Your task to perform on an android device: Open calendar and show me the second week of next month Image 0: 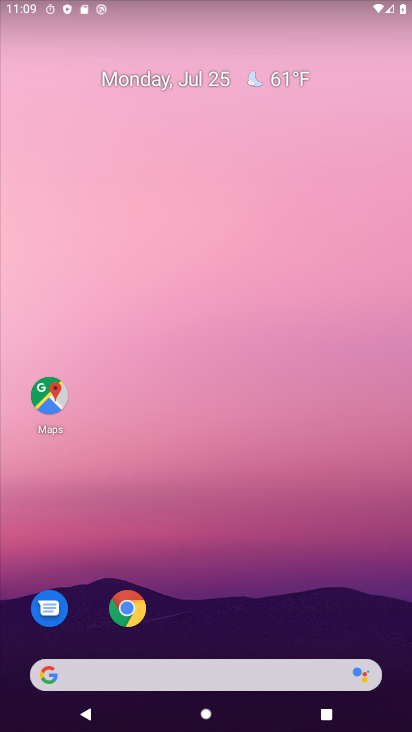
Step 0: drag from (287, 583) to (353, 7)
Your task to perform on an android device: Open calendar and show me the second week of next month Image 1: 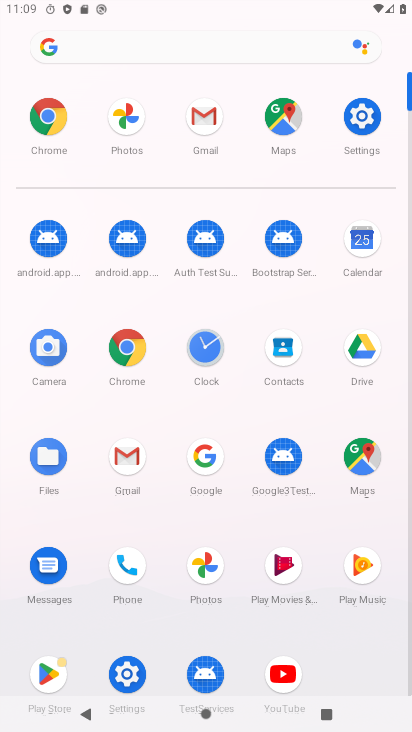
Step 1: click (374, 239)
Your task to perform on an android device: Open calendar and show me the second week of next month Image 2: 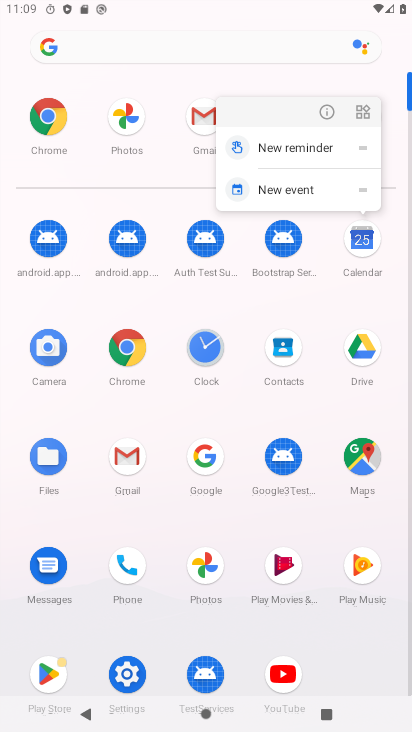
Step 2: click (361, 246)
Your task to perform on an android device: Open calendar and show me the second week of next month Image 3: 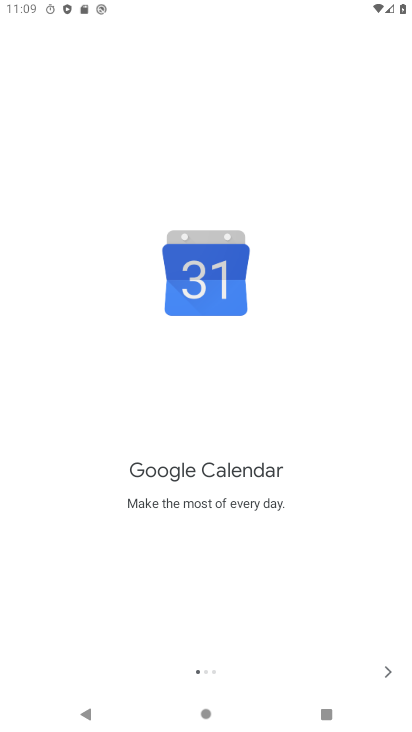
Step 3: click (392, 672)
Your task to perform on an android device: Open calendar and show me the second week of next month Image 4: 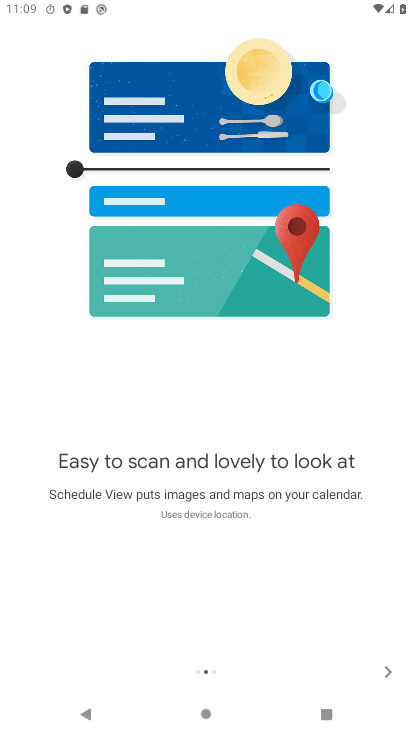
Step 4: click (390, 670)
Your task to perform on an android device: Open calendar and show me the second week of next month Image 5: 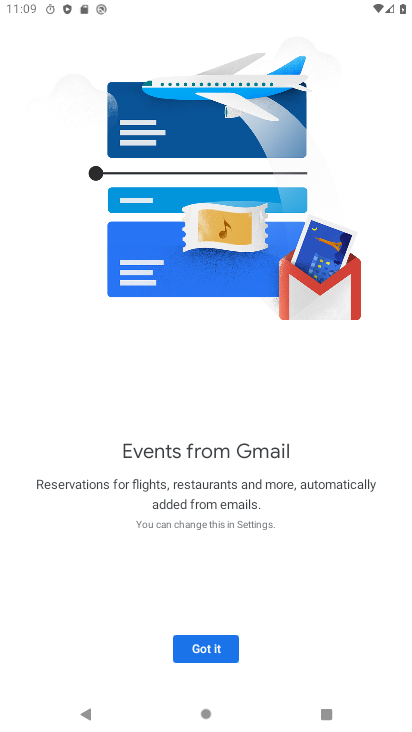
Step 5: click (206, 633)
Your task to perform on an android device: Open calendar and show me the second week of next month Image 6: 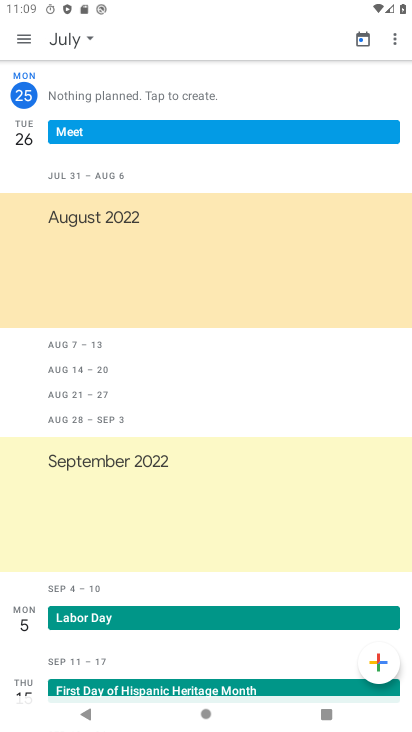
Step 6: click (77, 40)
Your task to perform on an android device: Open calendar and show me the second week of next month Image 7: 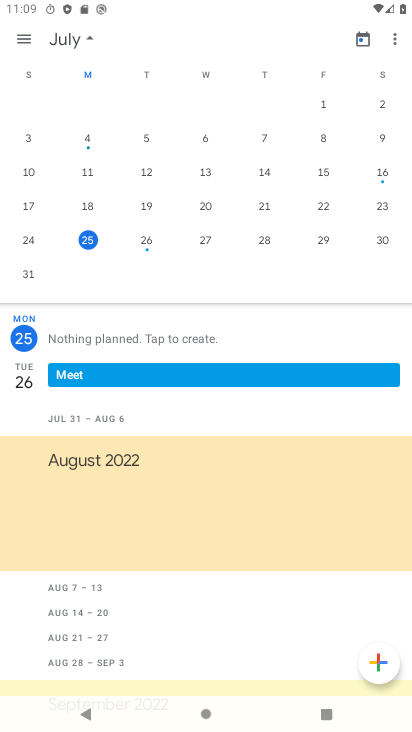
Step 7: drag from (349, 230) to (18, 188)
Your task to perform on an android device: Open calendar and show me the second week of next month Image 8: 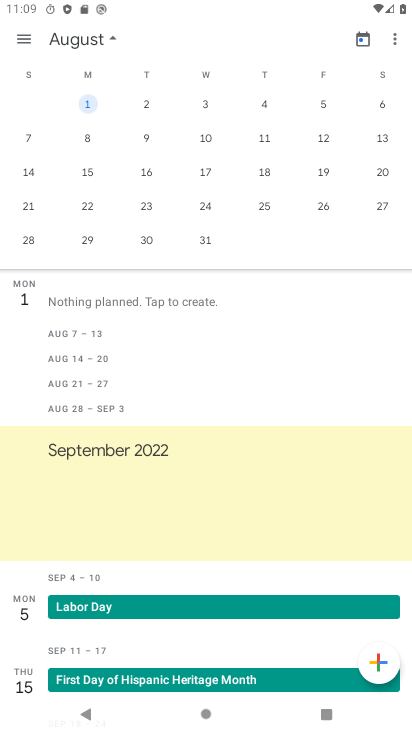
Step 8: click (206, 171)
Your task to perform on an android device: Open calendar and show me the second week of next month Image 9: 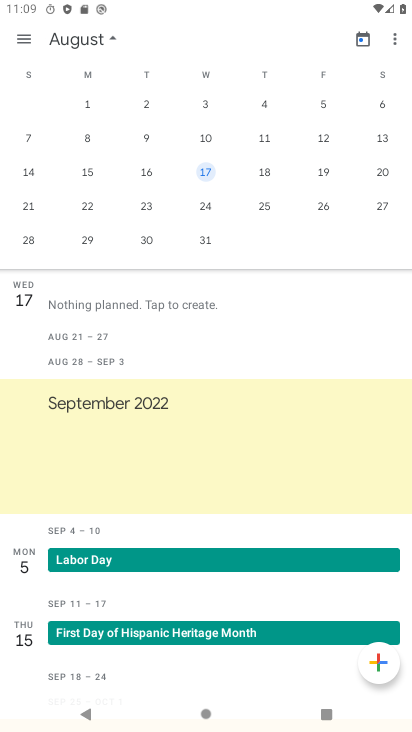
Step 9: click (28, 170)
Your task to perform on an android device: Open calendar and show me the second week of next month Image 10: 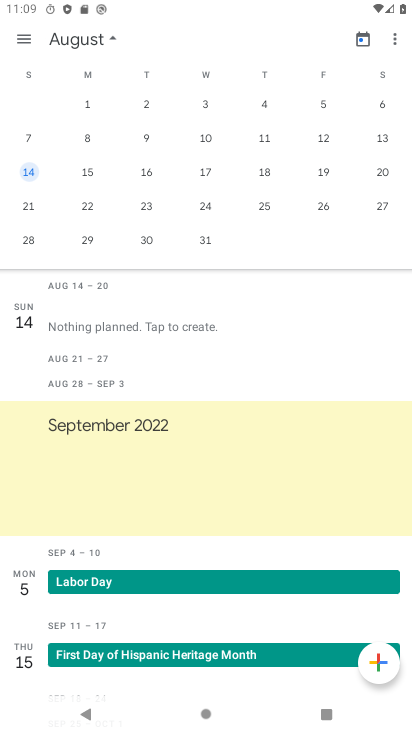
Step 10: task complete